Your task to perform on an android device: Open the Play Movies app and select the watchlist tab. Image 0: 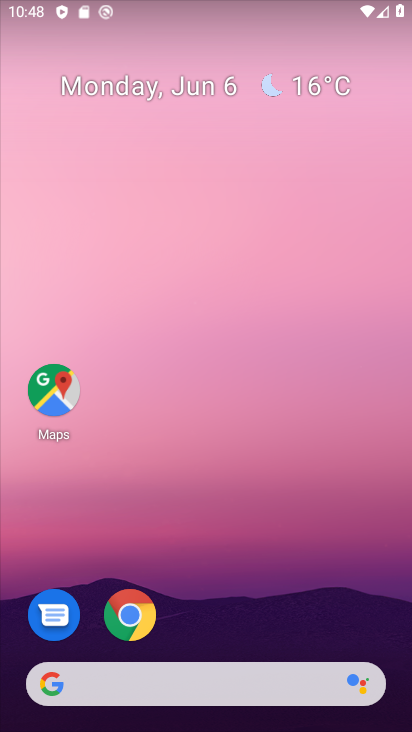
Step 0: drag from (145, 643) to (174, 105)
Your task to perform on an android device: Open the Play Movies app and select the watchlist tab. Image 1: 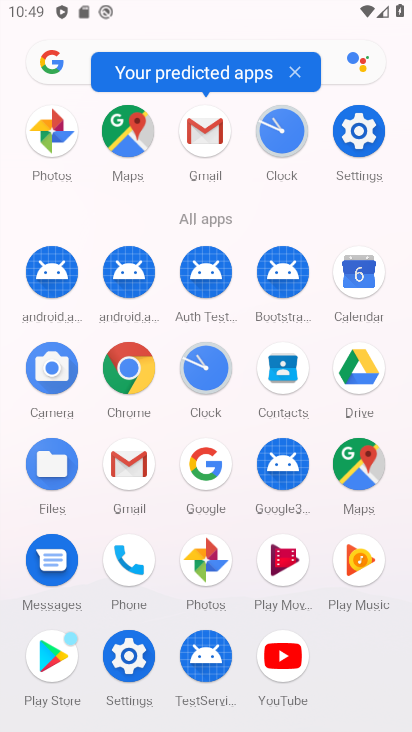
Step 1: click (283, 566)
Your task to perform on an android device: Open the Play Movies app and select the watchlist tab. Image 2: 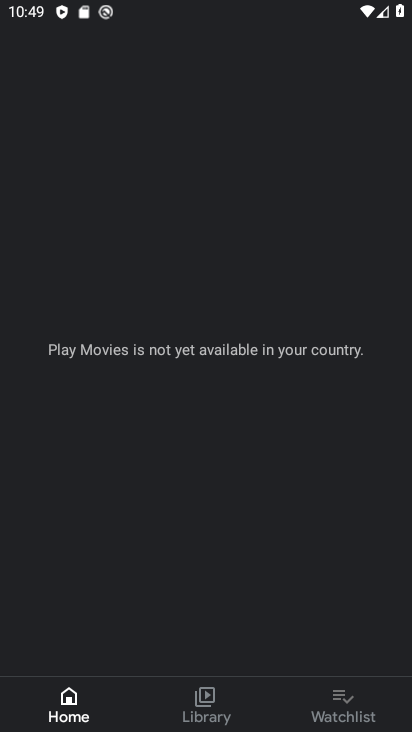
Step 2: click (333, 692)
Your task to perform on an android device: Open the Play Movies app and select the watchlist tab. Image 3: 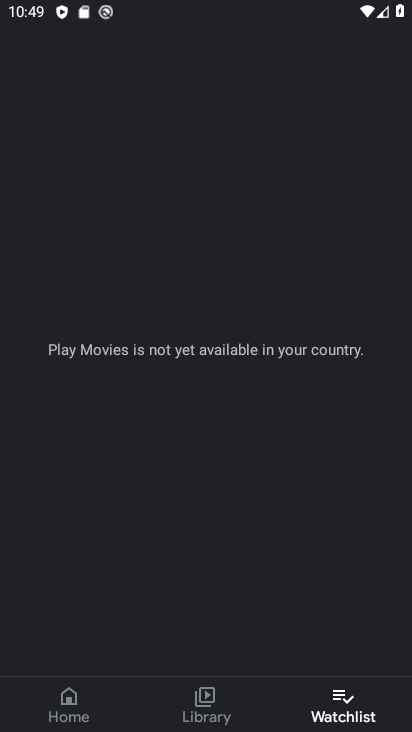
Step 3: task complete